Your task to perform on an android device: move an email to a new category in the gmail app Image 0: 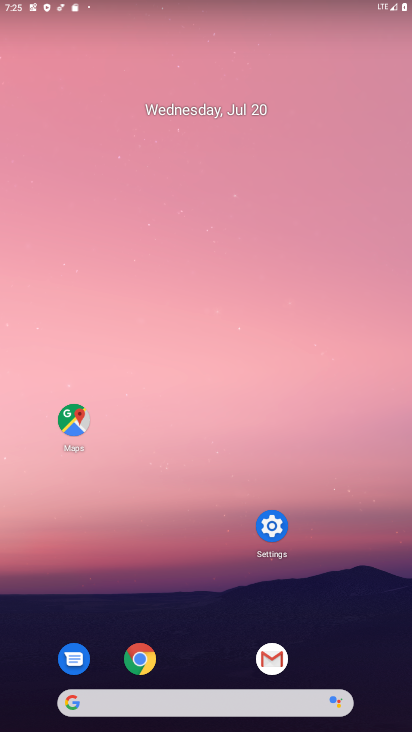
Step 0: click (274, 654)
Your task to perform on an android device: move an email to a new category in the gmail app Image 1: 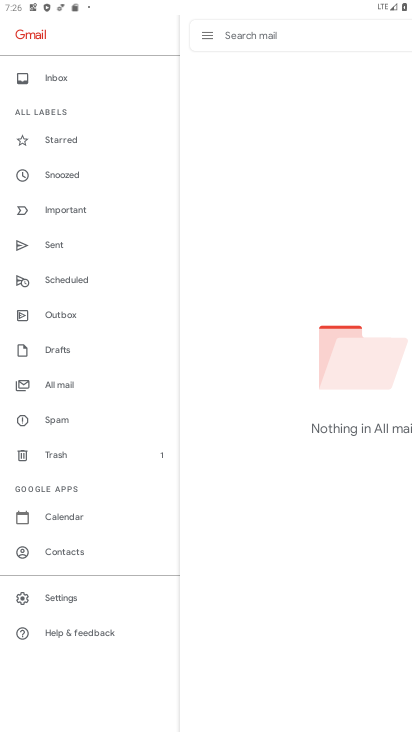
Step 1: click (72, 596)
Your task to perform on an android device: move an email to a new category in the gmail app Image 2: 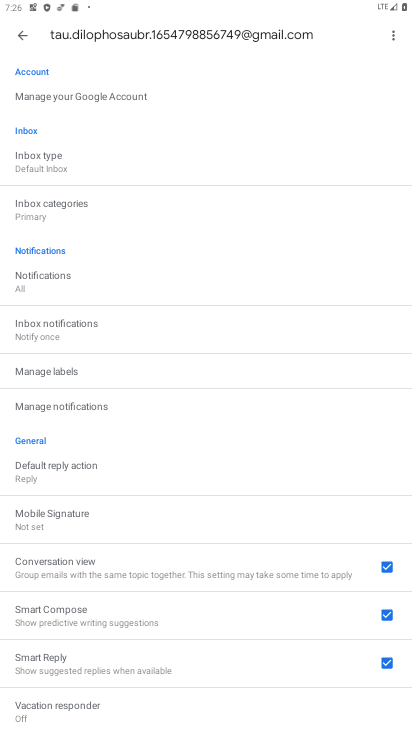
Step 2: click (91, 200)
Your task to perform on an android device: move an email to a new category in the gmail app Image 3: 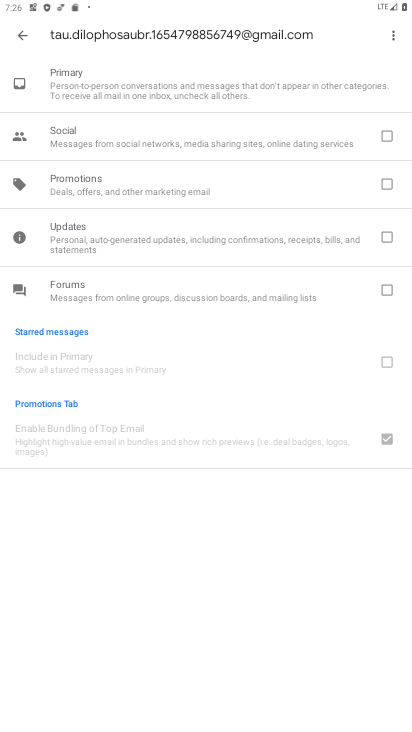
Step 3: click (378, 138)
Your task to perform on an android device: move an email to a new category in the gmail app Image 4: 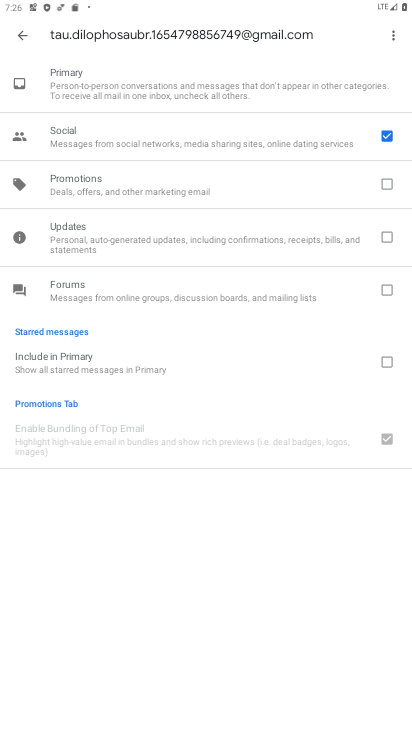
Step 4: task complete